Your task to perform on an android device: Go to Google maps Image 0: 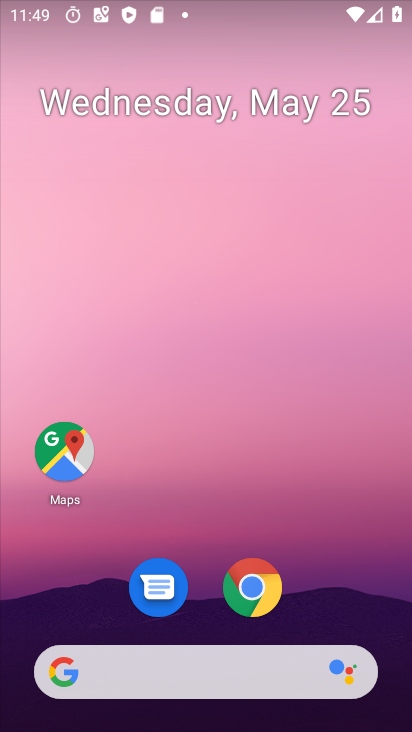
Step 0: drag from (224, 675) to (290, 60)
Your task to perform on an android device: Go to Google maps Image 1: 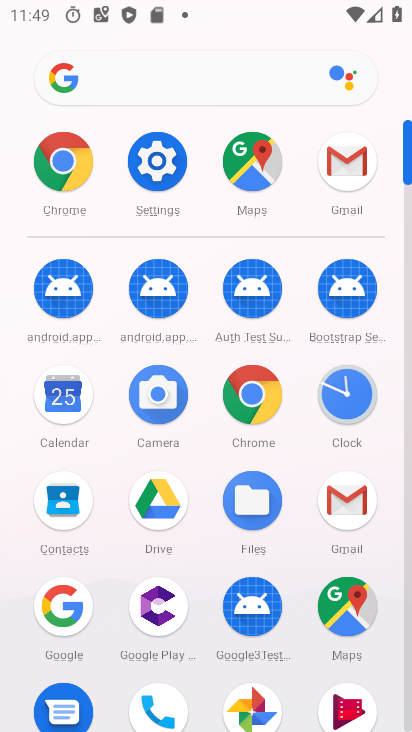
Step 1: click (272, 168)
Your task to perform on an android device: Go to Google maps Image 2: 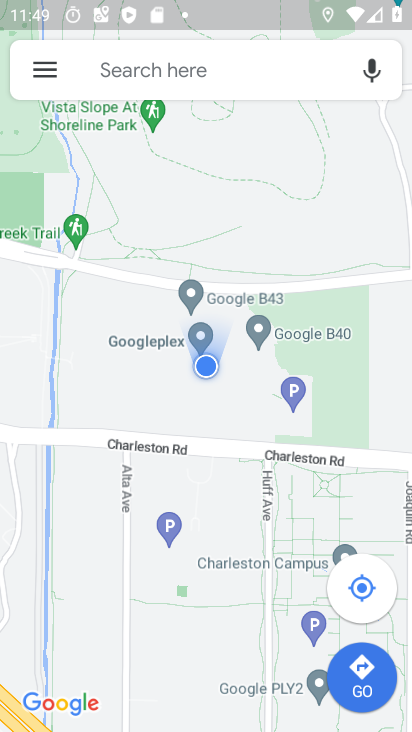
Step 2: task complete